Your task to perform on an android device: turn on translation in the chrome app Image 0: 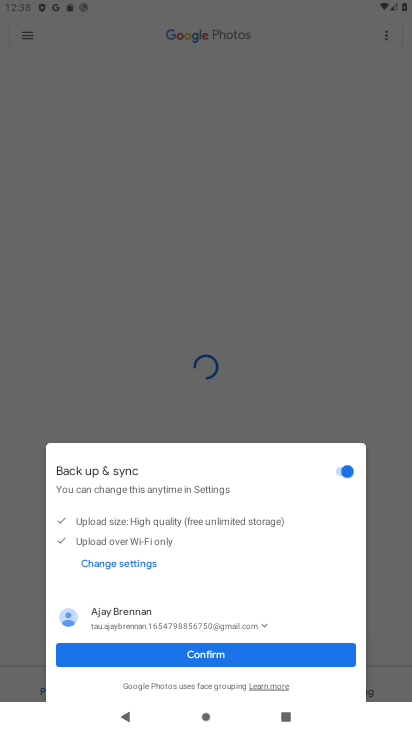
Step 0: press back button
Your task to perform on an android device: turn on translation in the chrome app Image 1: 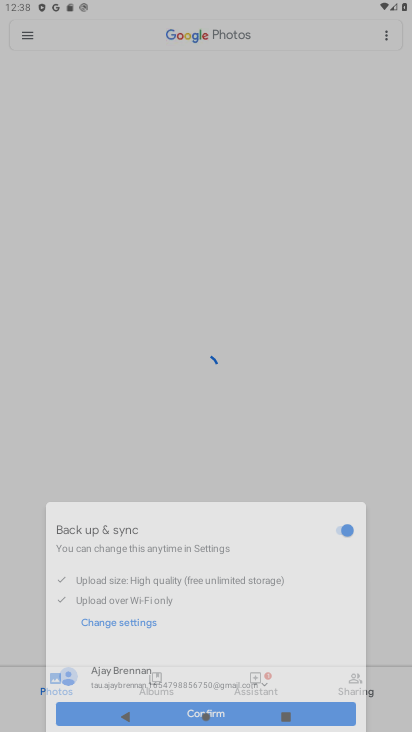
Step 1: press back button
Your task to perform on an android device: turn on translation in the chrome app Image 2: 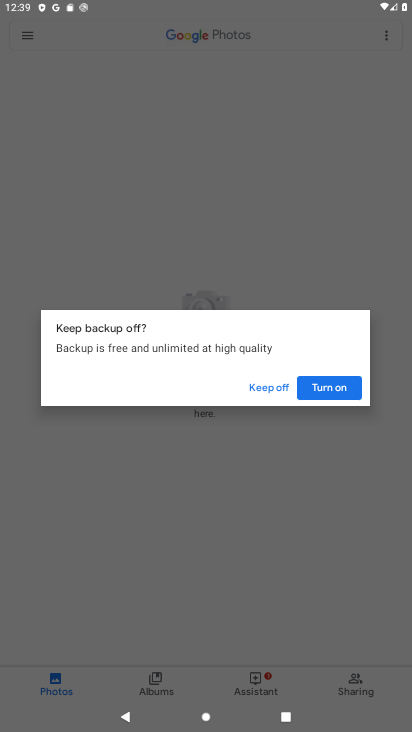
Step 2: click (260, 383)
Your task to perform on an android device: turn on translation in the chrome app Image 3: 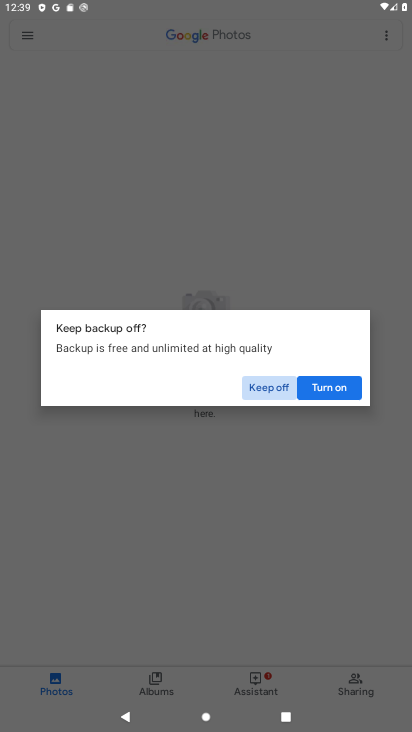
Step 3: click (260, 383)
Your task to perform on an android device: turn on translation in the chrome app Image 4: 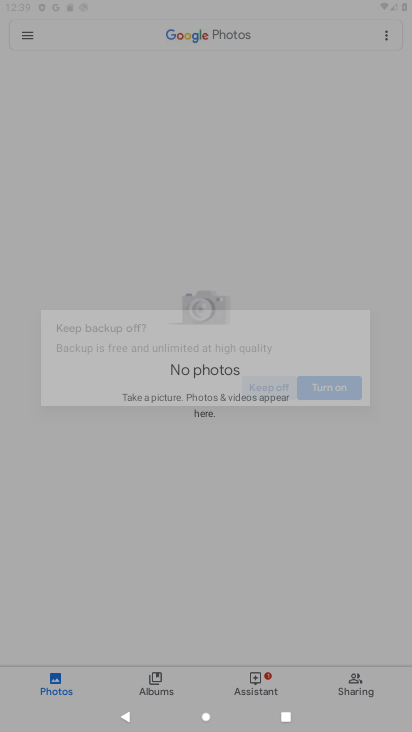
Step 4: click (260, 383)
Your task to perform on an android device: turn on translation in the chrome app Image 5: 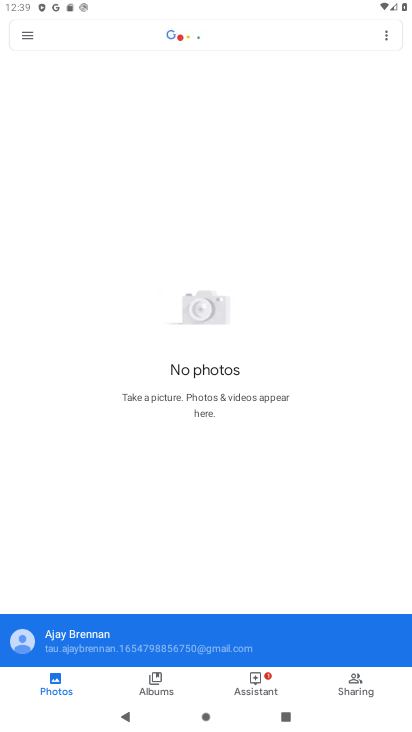
Step 5: press back button
Your task to perform on an android device: turn on translation in the chrome app Image 6: 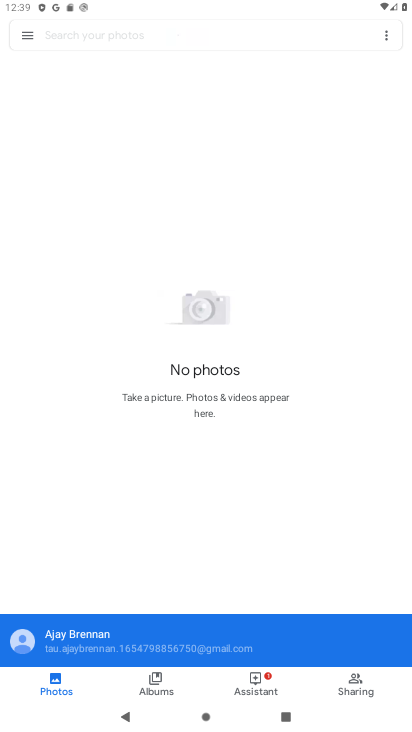
Step 6: press back button
Your task to perform on an android device: turn on translation in the chrome app Image 7: 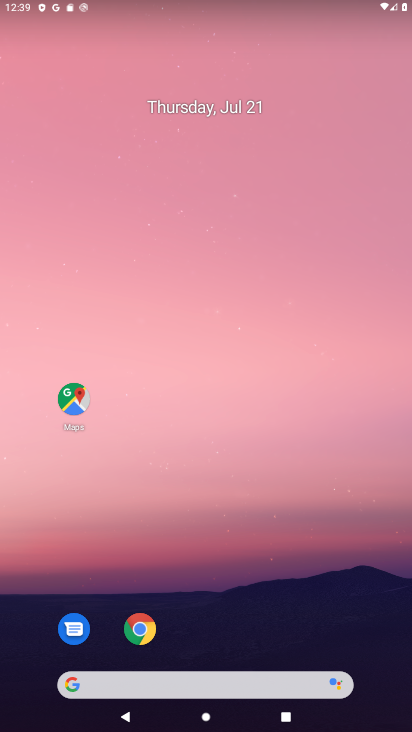
Step 7: drag from (216, 338) to (214, 226)
Your task to perform on an android device: turn on translation in the chrome app Image 8: 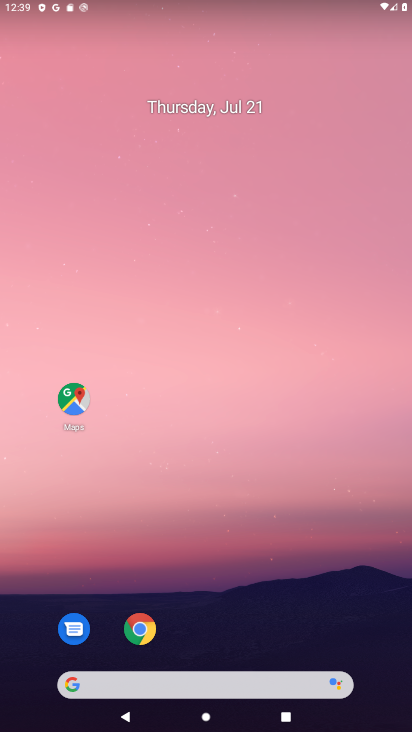
Step 8: drag from (225, 510) to (225, 262)
Your task to perform on an android device: turn on translation in the chrome app Image 9: 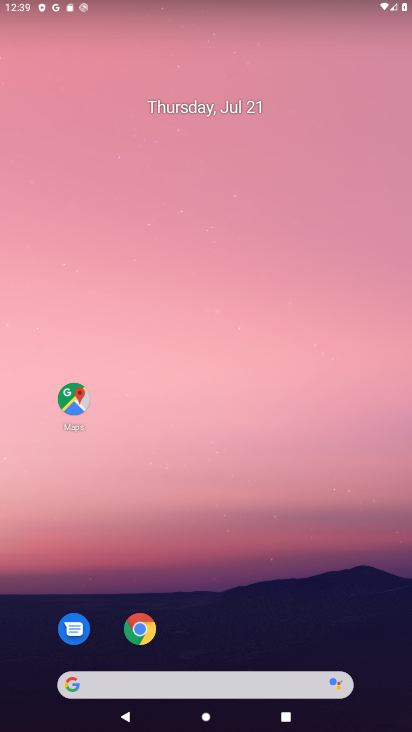
Step 9: drag from (235, 574) to (156, 292)
Your task to perform on an android device: turn on translation in the chrome app Image 10: 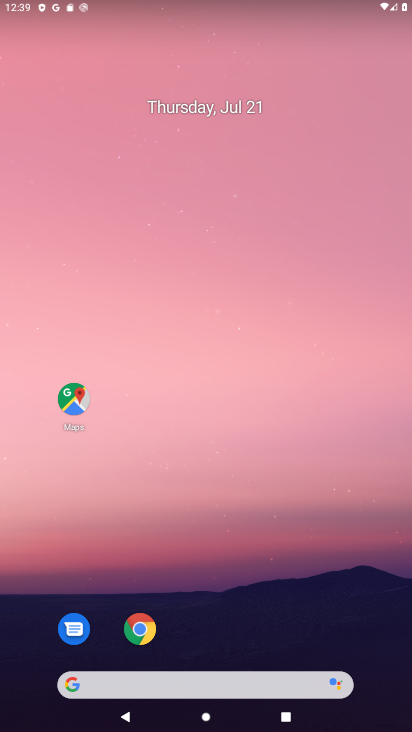
Step 10: drag from (234, 496) to (234, 133)
Your task to perform on an android device: turn on translation in the chrome app Image 11: 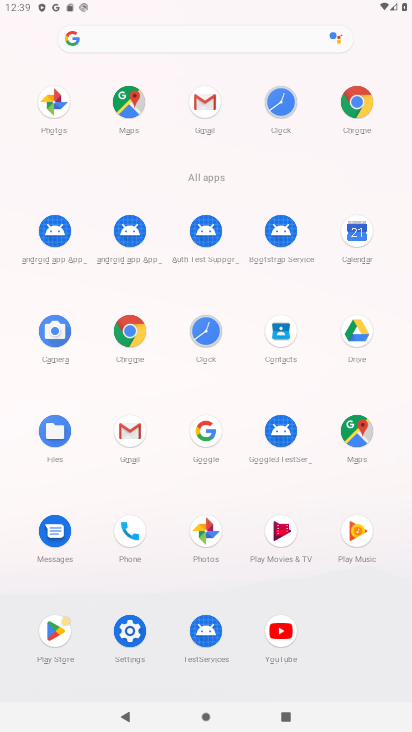
Step 11: click (361, 99)
Your task to perform on an android device: turn on translation in the chrome app Image 12: 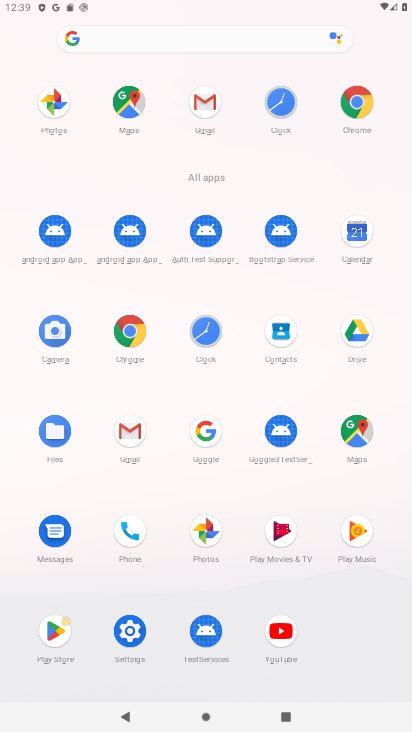
Step 12: click (361, 99)
Your task to perform on an android device: turn on translation in the chrome app Image 13: 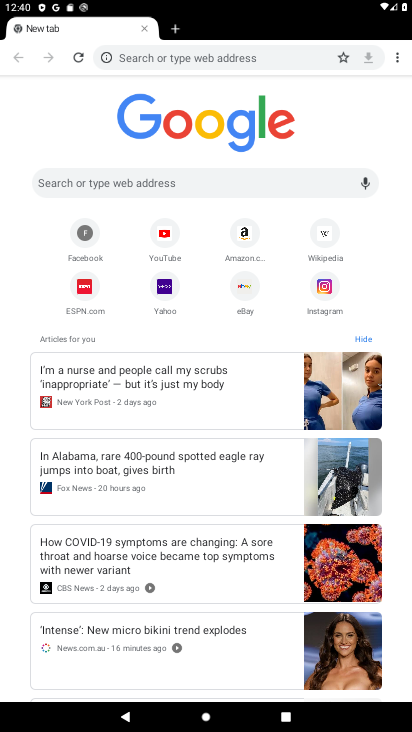
Step 13: click (393, 58)
Your task to perform on an android device: turn on translation in the chrome app Image 14: 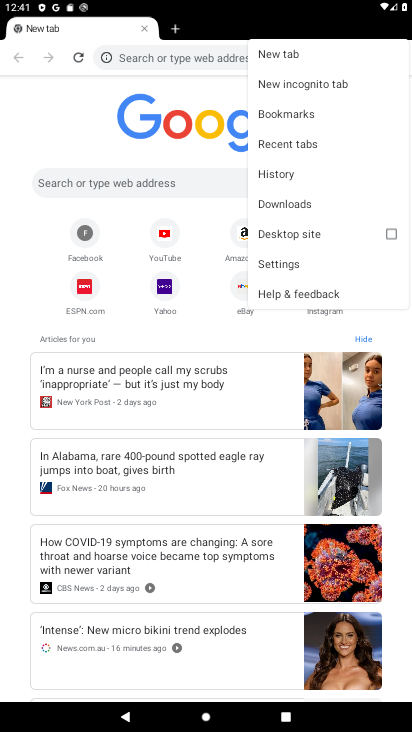
Step 14: click (213, 204)
Your task to perform on an android device: turn on translation in the chrome app Image 15: 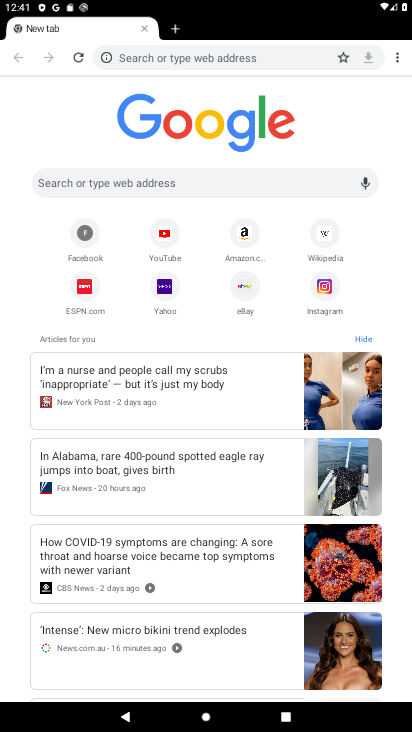
Step 15: click (213, 206)
Your task to perform on an android device: turn on translation in the chrome app Image 16: 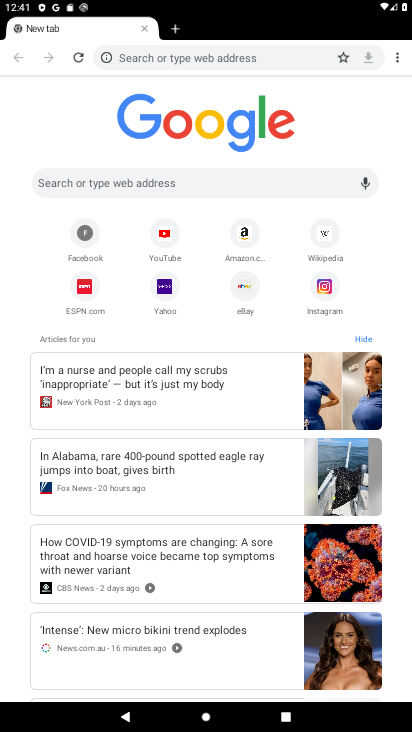
Step 16: click (48, 121)
Your task to perform on an android device: turn on translation in the chrome app Image 17: 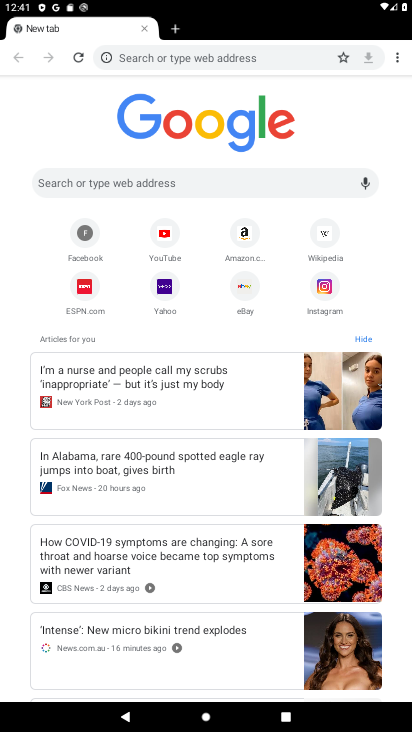
Step 17: click (400, 55)
Your task to perform on an android device: turn on translation in the chrome app Image 18: 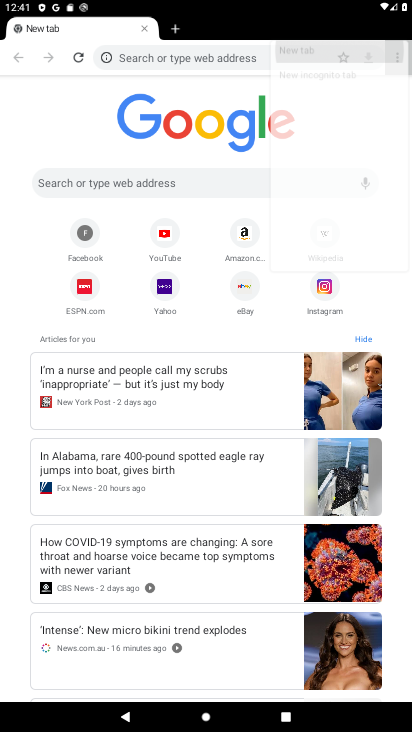
Step 18: click (395, 54)
Your task to perform on an android device: turn on translation in the chrome app Image 19: 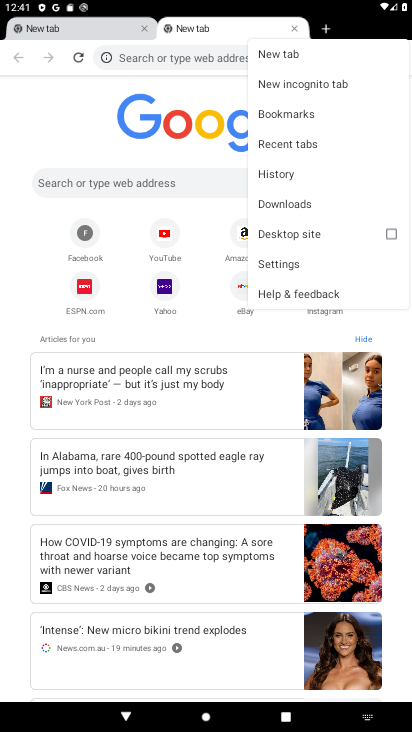
Step 19: click (285, 264)
Your task to perform on an android device: turn on translation in the chrome app Image 20: 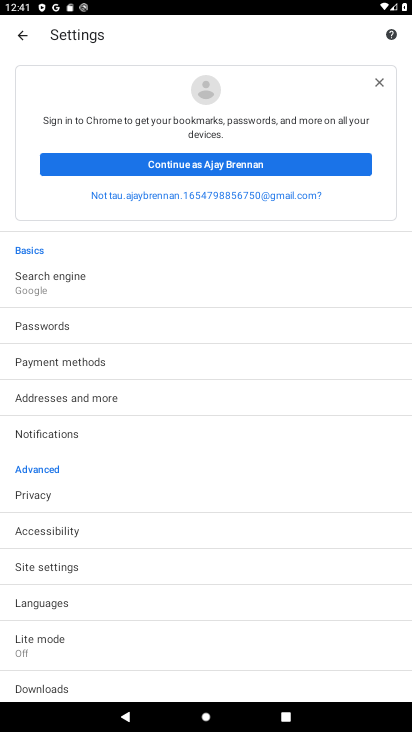
Step 20: click (56, 600)
Your task to perform on an android device: turn on translation in the chrome app Image 21: 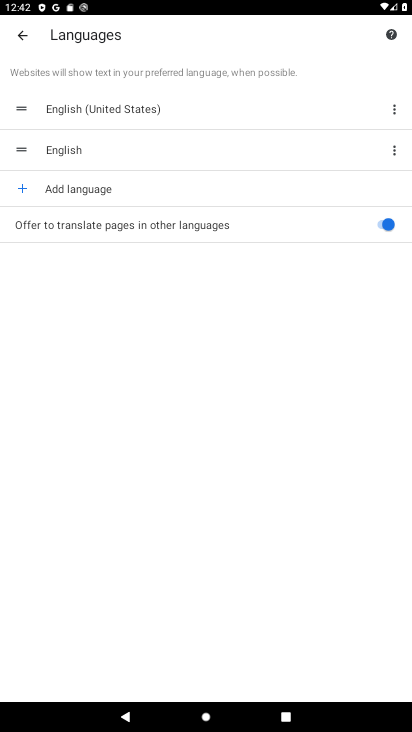
Step 21: task complete